Your task to perform on an android device: Add dell xps to the cart on ebay Image 0: 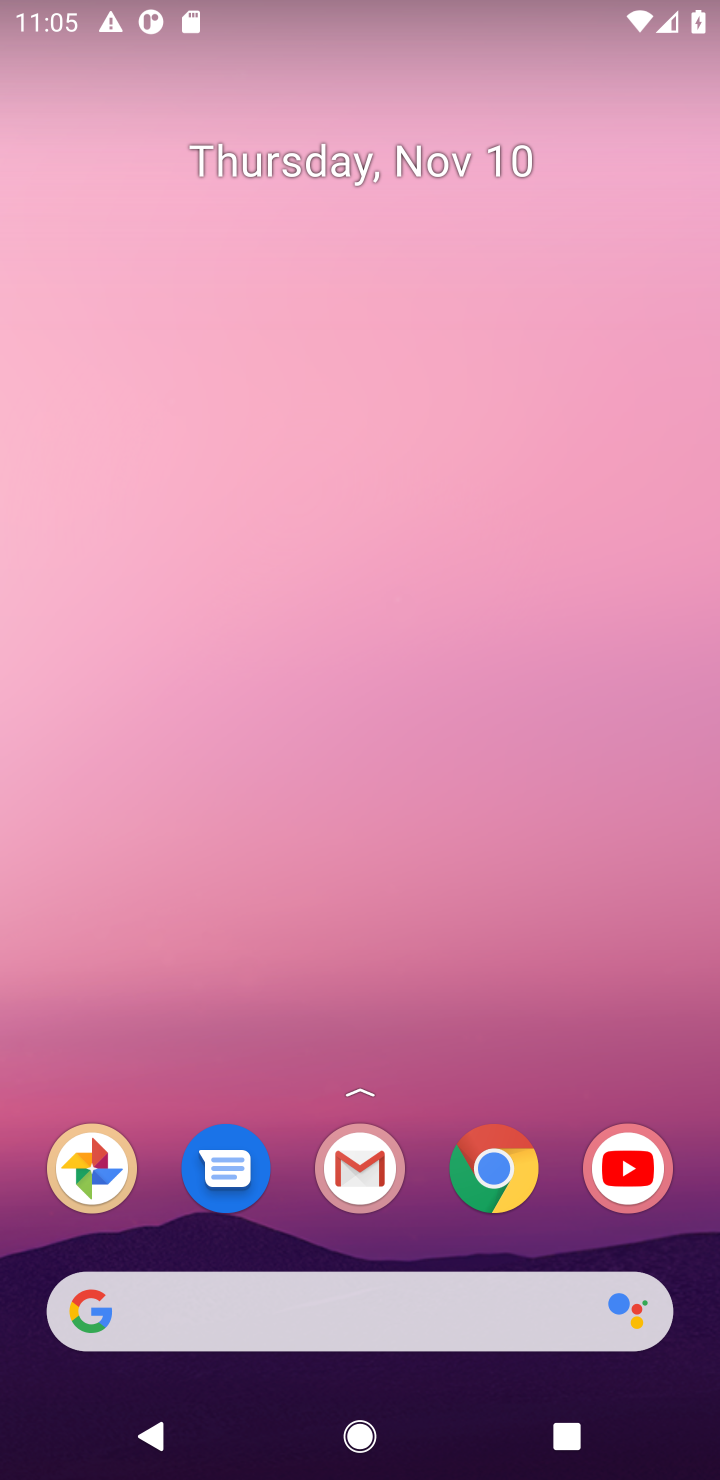
Step 0: click (500, 1165)
Your task to perform on an android device: Add dell xps to the cart on ebay Image 1: 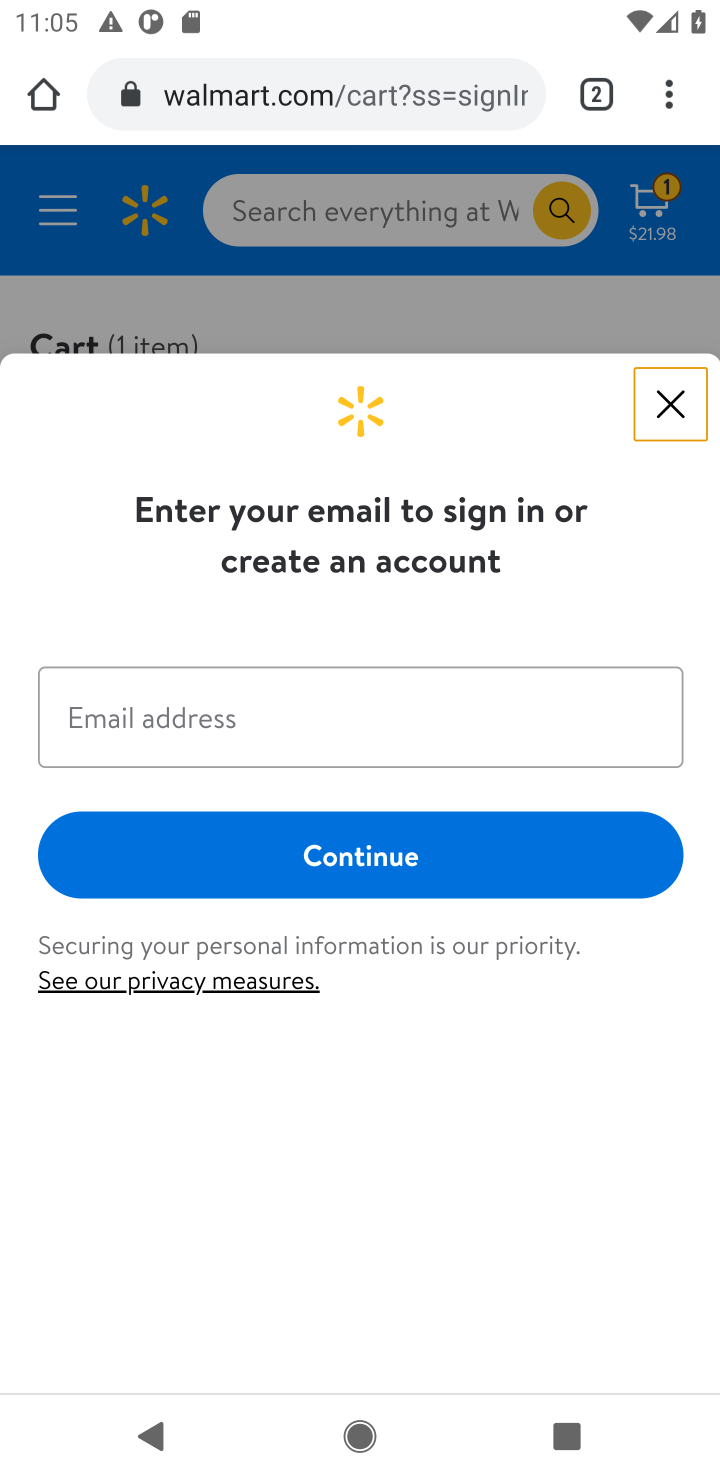
Step 1: click (301, 107)
Your task to perform on an android device: Add dell xps to the cart on ebay Image 2: 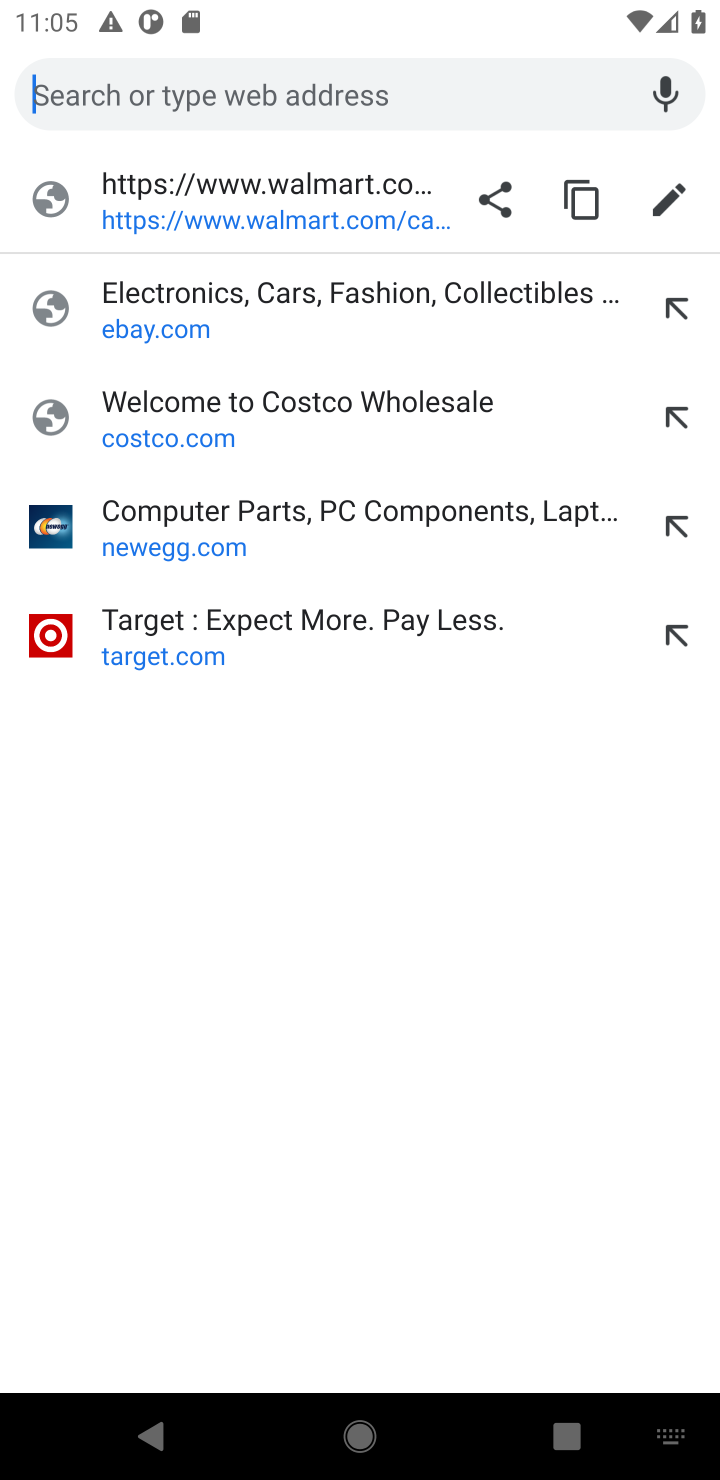
Step 2: click (174, 307)
Your task to perform on an android device: Add dell xps to the cart on ebay Image 3: 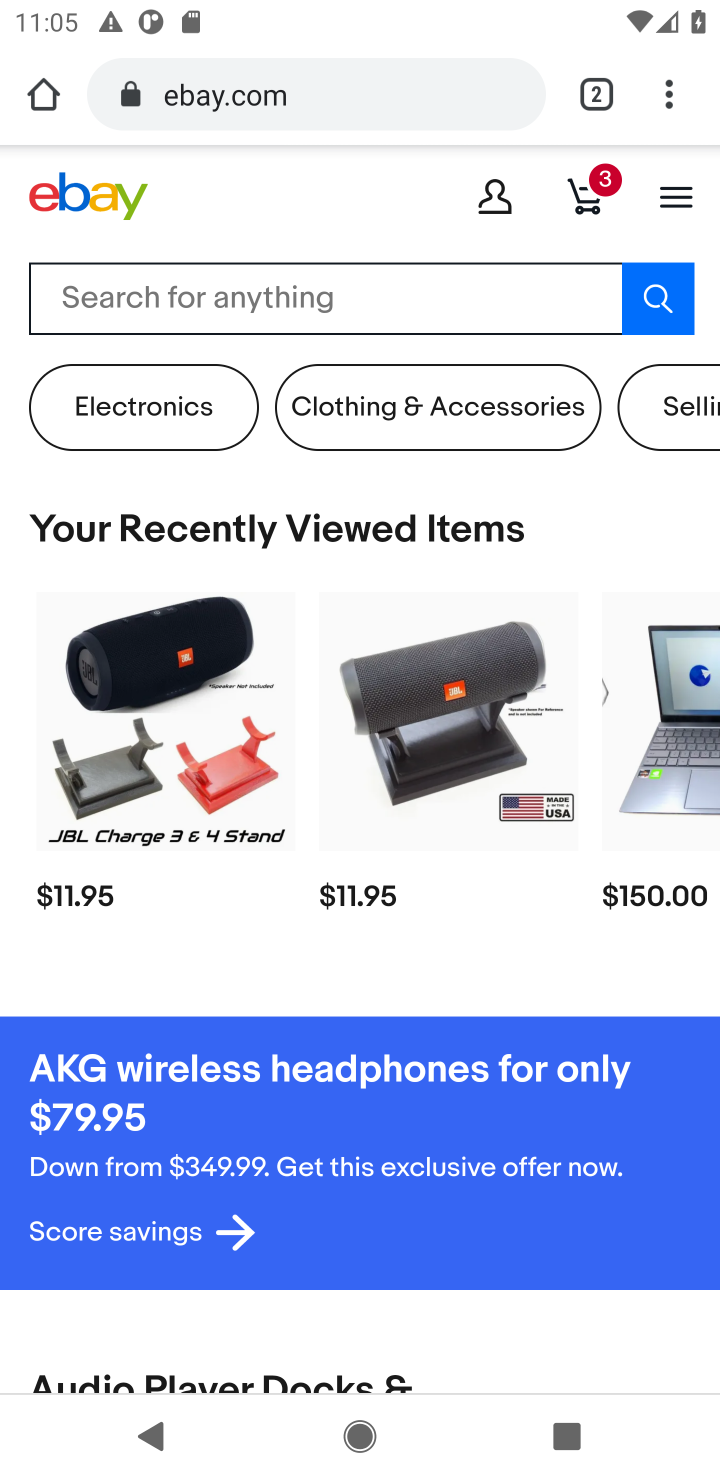
Step 3: click (279, 305)
Your task to perform on an android device: Add dell xps to the cart on ebay Image 4: 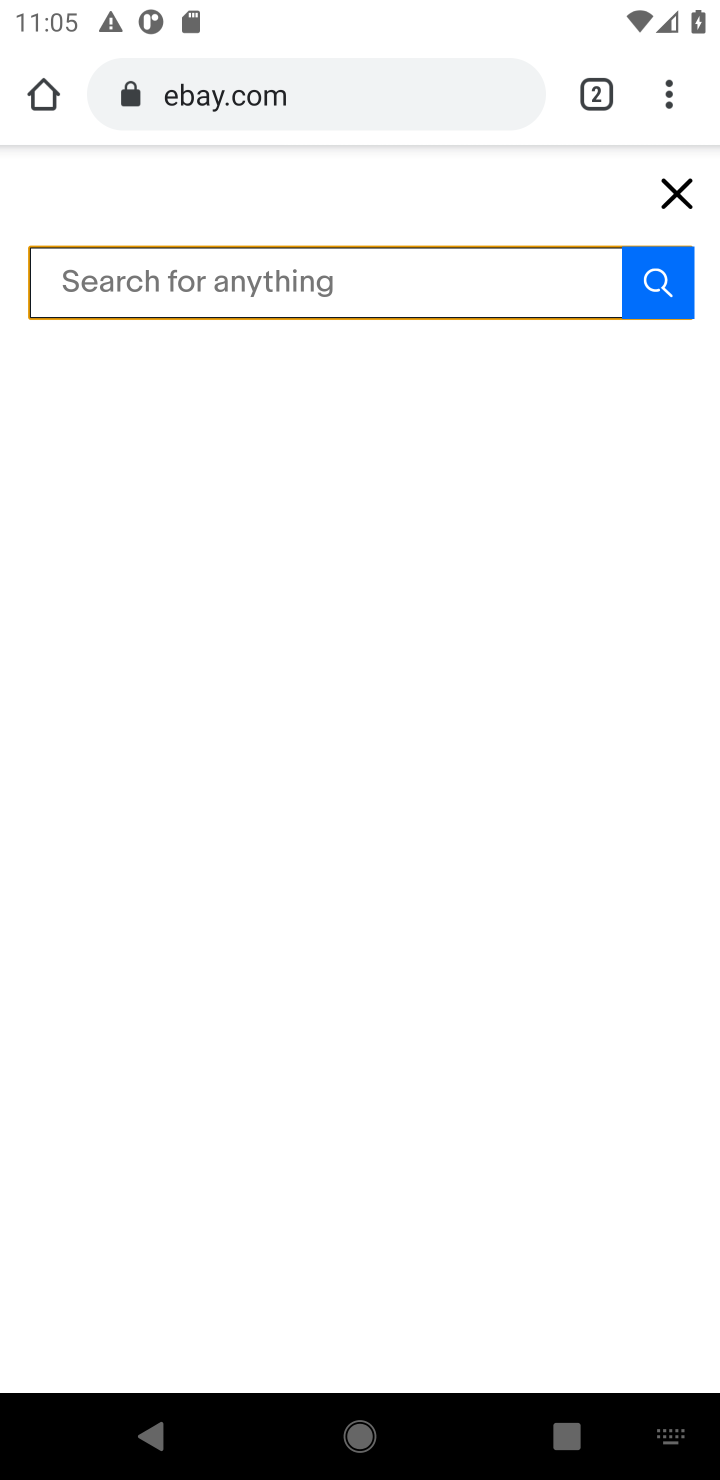
Step 4: type "dell xps"
Your task to perform on an android device: Add dell xps to the cart on ebay Image 5: 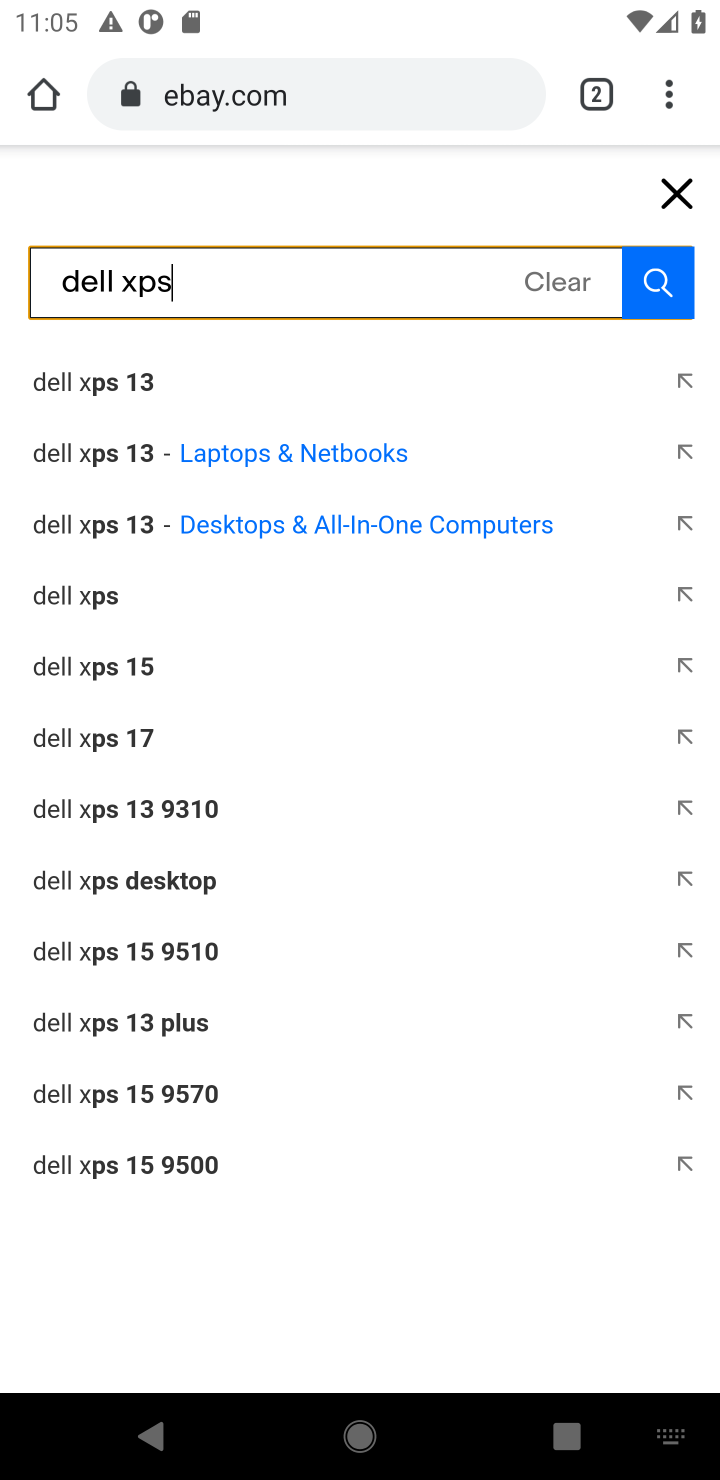
Step 5: click (101, 596)
Your task to perform on an android device: Add dell xps to the cart on ebay Image 6: 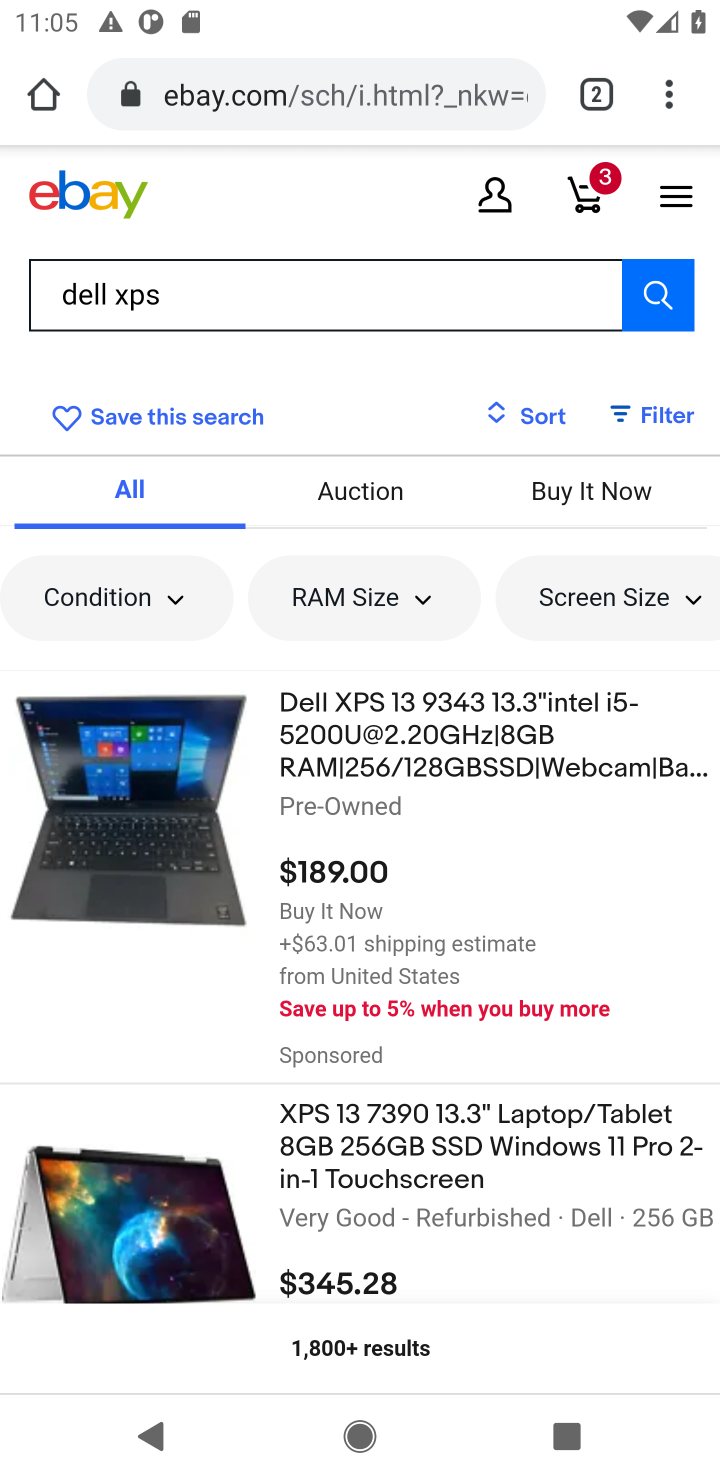
Step 6: click (142, 904)
Your task to perform on an android device: Add dell xps to the cart on ebay Image 7: 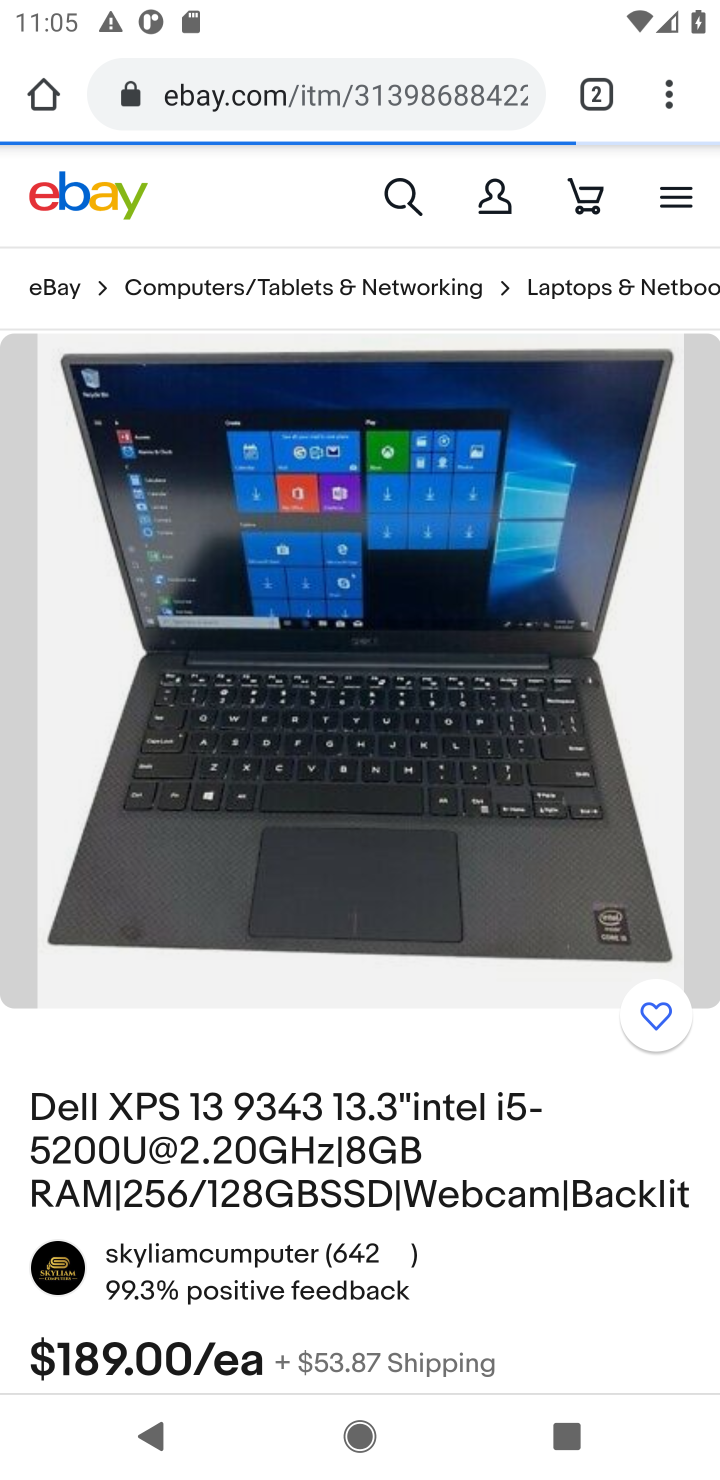
Step 7: drag from (385, 1093) to (316, 520)
Your task to perform on an android device: Add dell xps to the cart on ebay Image 8: 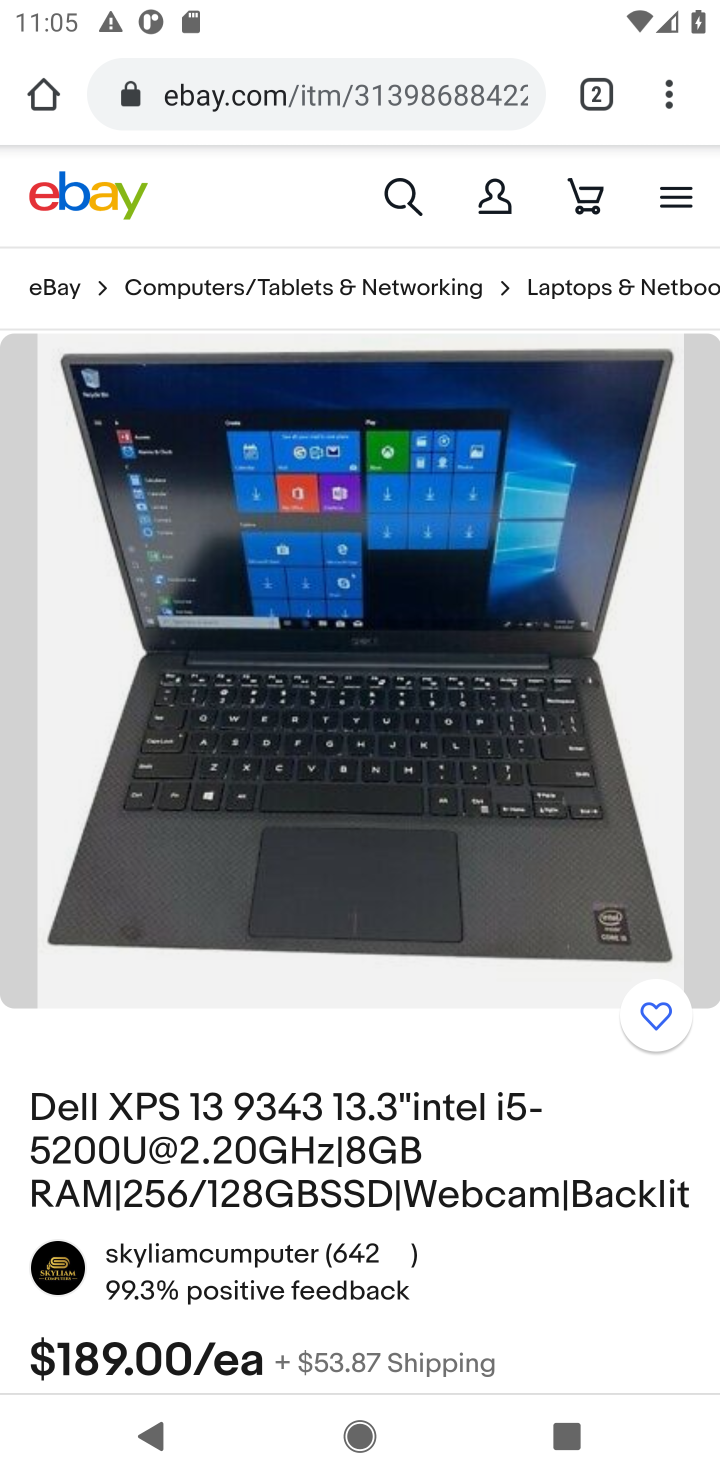
Step 8: drag from (454, 1054) to (339, 446)
Your task to perform on an android device: Add dell xps to the cart on ebay Image 9: 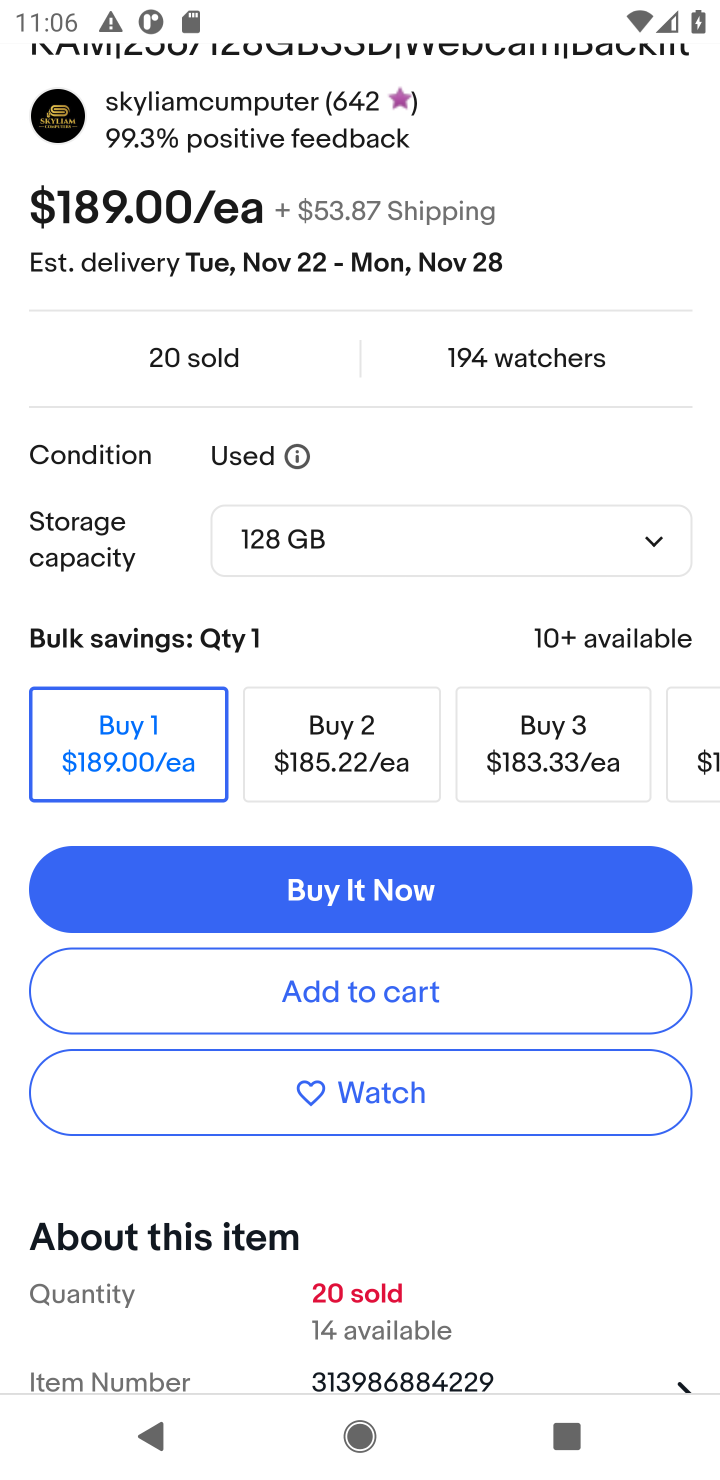
Step 9: click (328, 1000)
Your task to perform on an android device: Add dell xps to the cart on ebay Image 10: 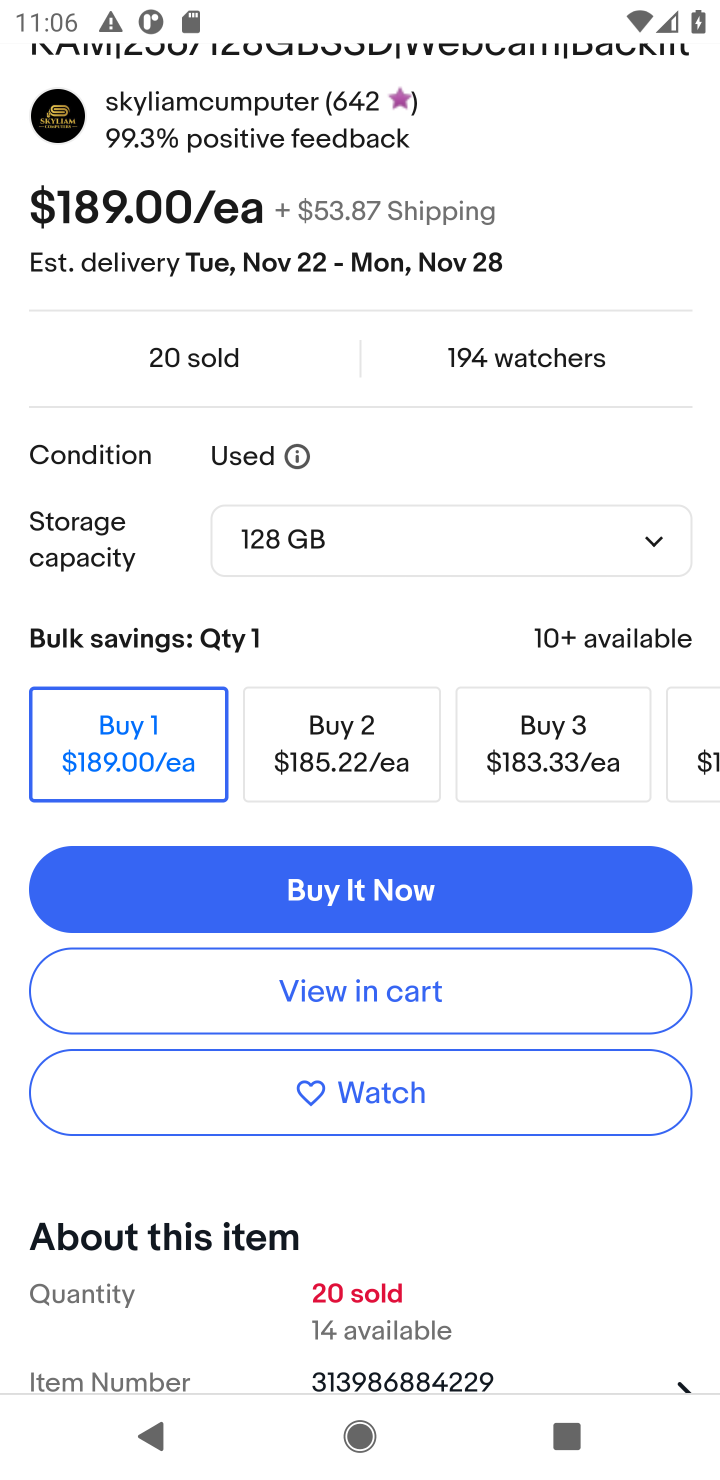
Step 10: task complete